Your task to perform on an android device: Check the news Image 0: 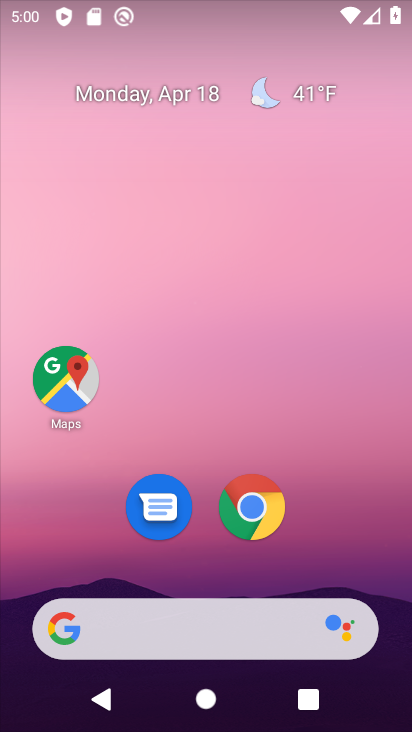
Step 0: drag from (312, 560) to (296, 3)
Your task to perform on an android device: Check the news Image 1: 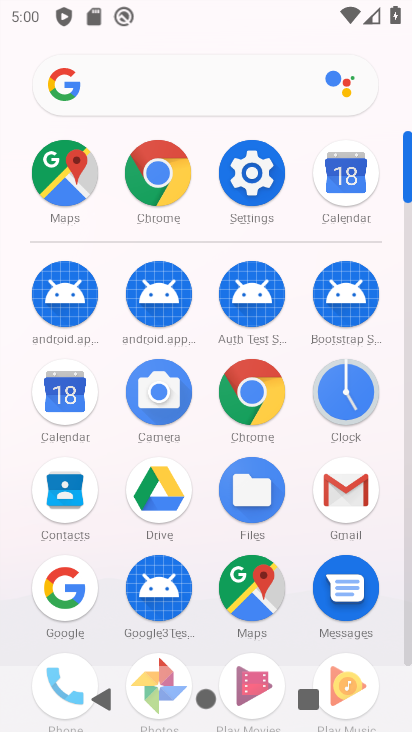
Step 1: click (246, 408)
Your task to perform on an android device: Check the news Image 2: 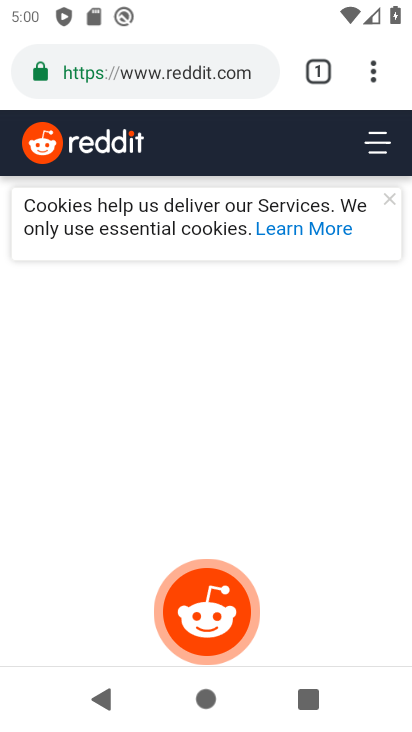
Step 2: click (260, 56)
Your task to perform on an android device: Check the news Image 3: 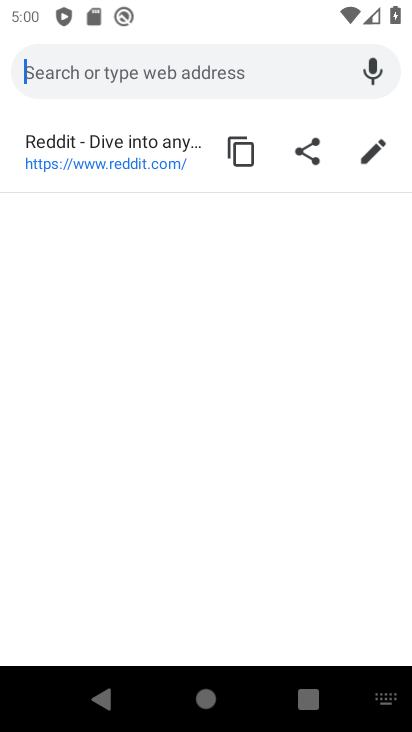
Step 3: type "today news"
Your task to perform on an android device: Check the news Image 4: 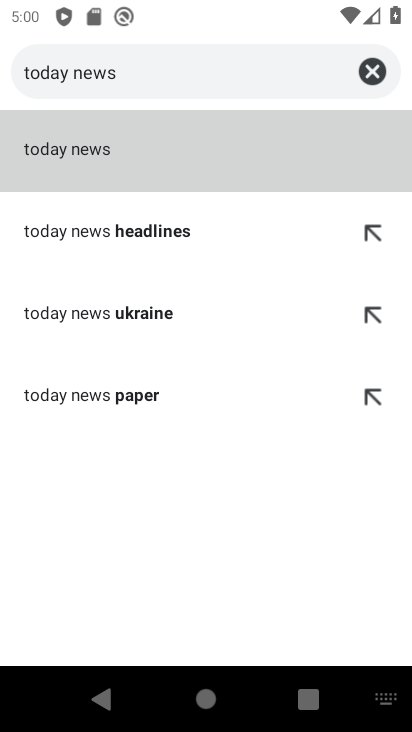
Step 4: click (106, 163)
Your task to perform on an android device: Check the news Image 5: 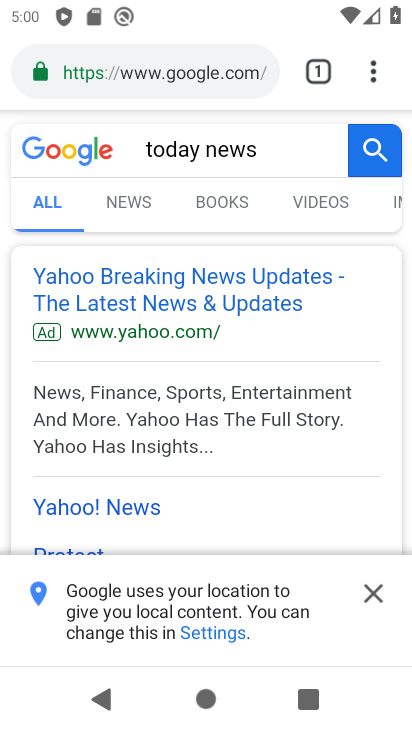
Step 5: task complete